Your task to perform on an android device: Open Maps and search for coffee Image 0: 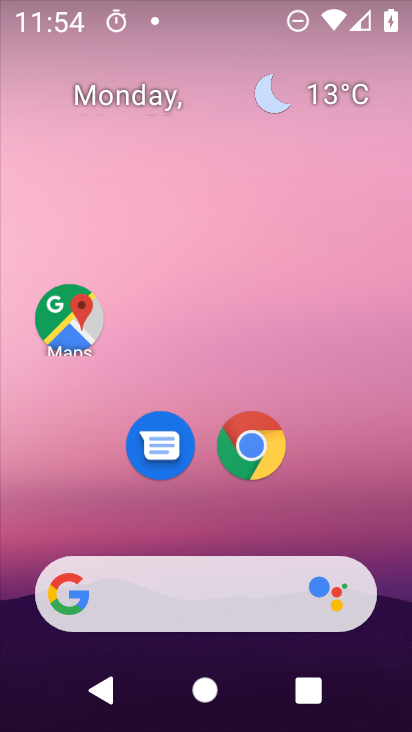
Step 0: click (71, 312)
Your task to perform on an android device: Open Maps and search for coffee Image 1: 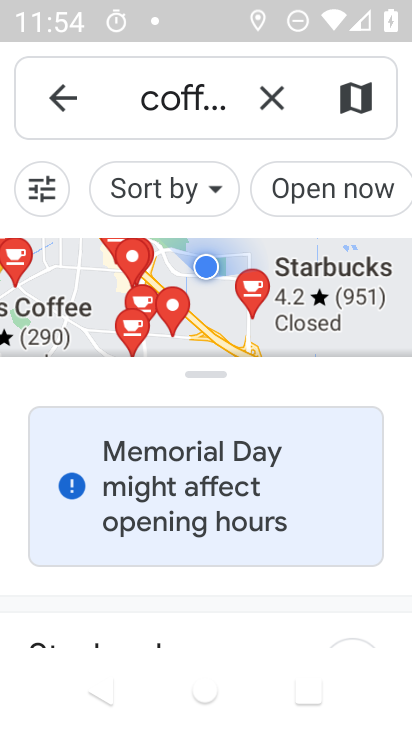
Step 1: task complete